Your task to perform on an android device: move an email to a new category in the gmail app Image 0: 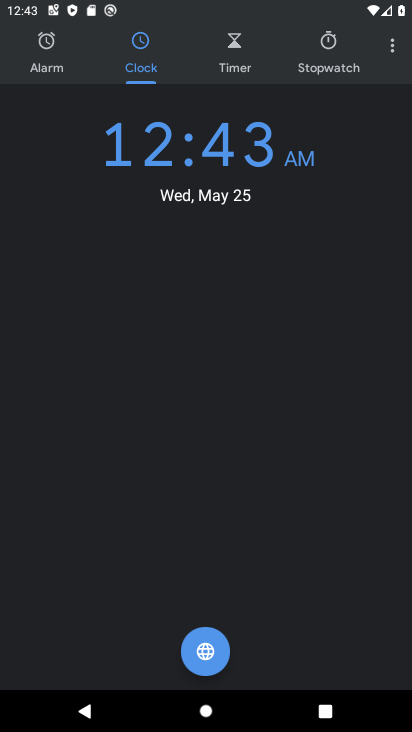
Step 0: press home button
Your task to perform on an android device: move an email to a new category in the gmail app Image 1: 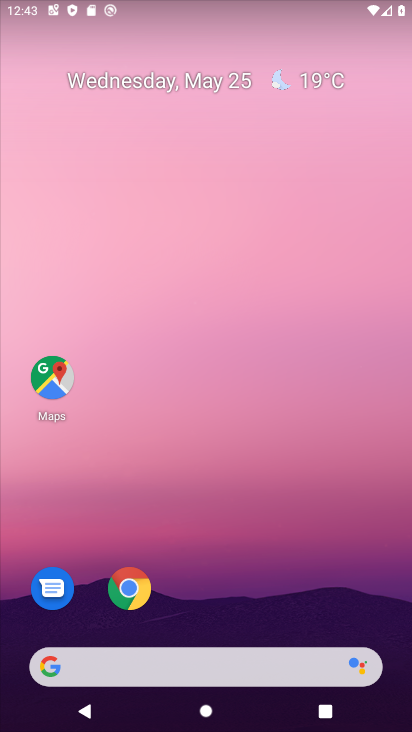
Step 1: drag from (229, 651) to (348, 224)
Your task to perform on an android device: move an email to a new category in the gmail app Image 2: 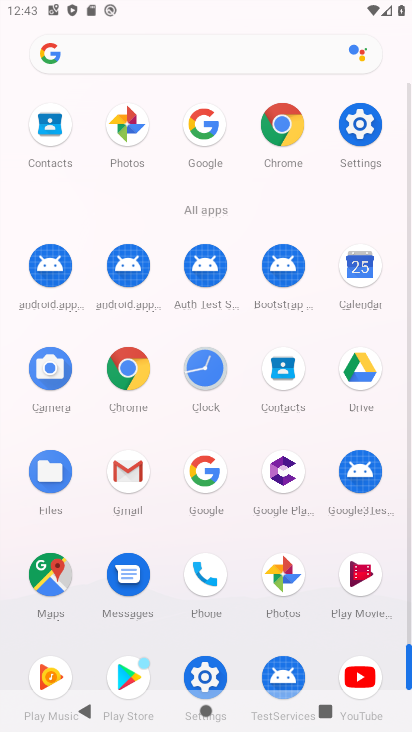
Step 2: click (118, 486)
Your task to perform on an android device: move an email to a new category in the gmail app Image 3: 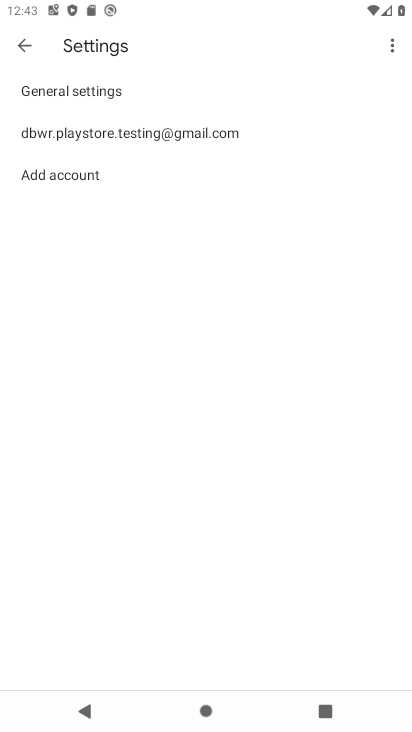
Step 3: click (27, 39)
Your task to perform on an android device: move an email to a new category in the gmail app Image 4: 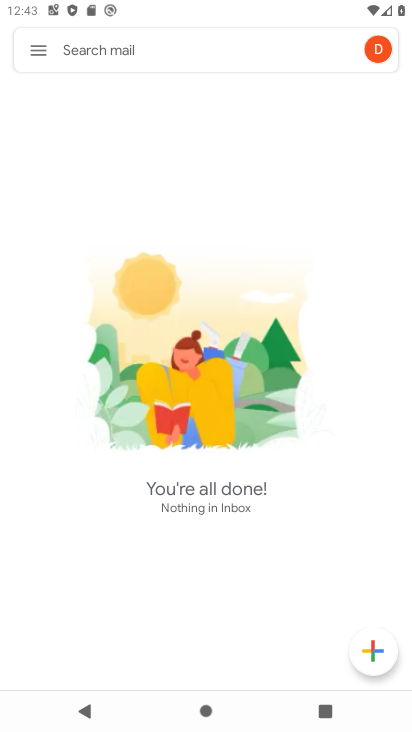
Step 4: click (56, 61)
Your task to perform on an android device: move an email to a new category in the gmail app Image 5: 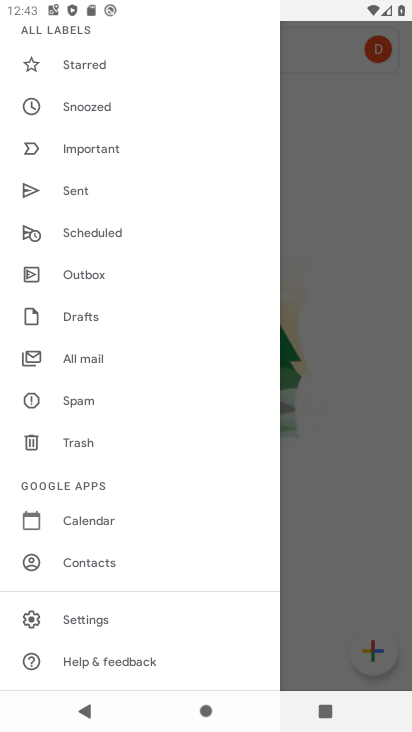
Step 5: click (119, 360)
Your task to perform on an android device: move an email to a new category in the gmail app Image 6: 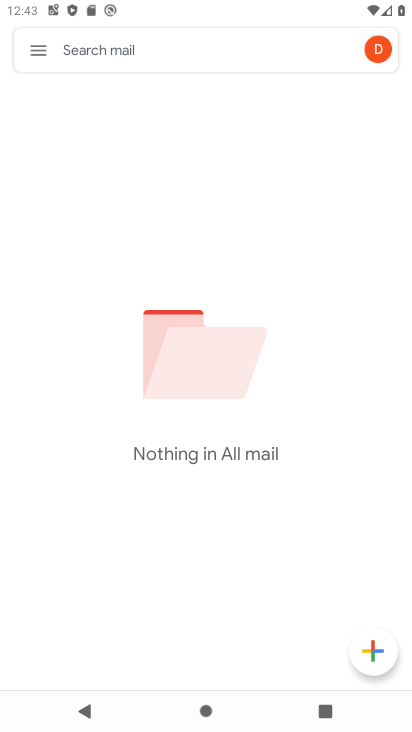
Step 6: task complete